Your task to perform on an android device: star an email in the gmail app Image 0: 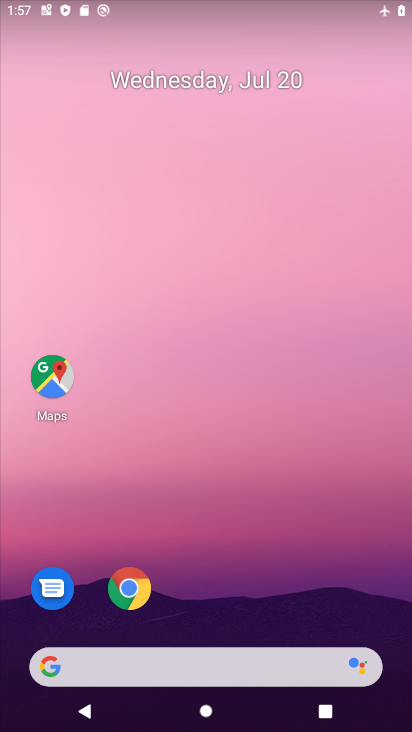
Step 0: drag from (318, 596) to (190, 138)
Your task to perform on an android device: star an email in the gmail app Image 1: 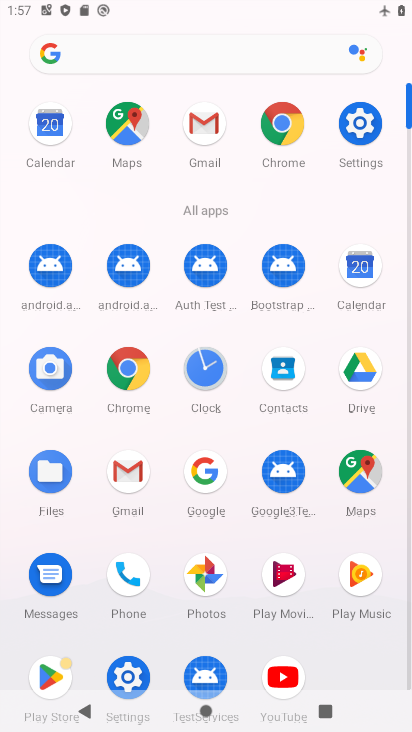
Step 1: click (190, 137)
Your task to perform on an android device: star an email in the gmail app Image 2: 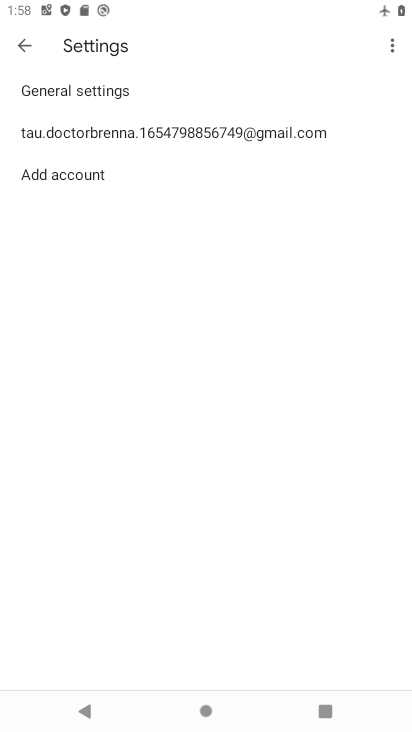
Step 2: click (19, 43)
Your task to perform on an android device: star an email in the gmail app Image 3: 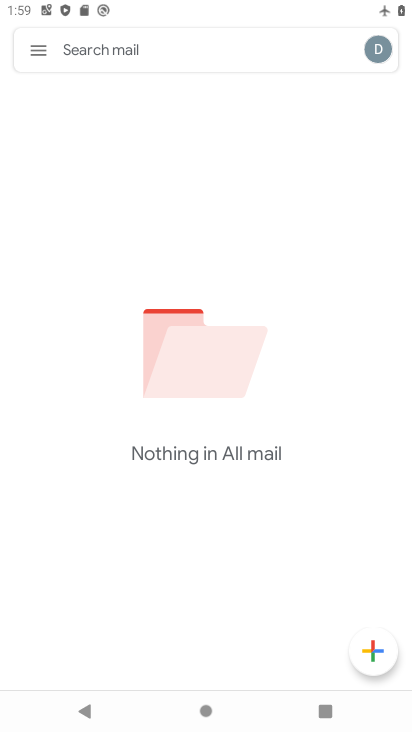
Step 3: task complete